Your task to perform on an android device: change your default location settings in chrome Image 0: 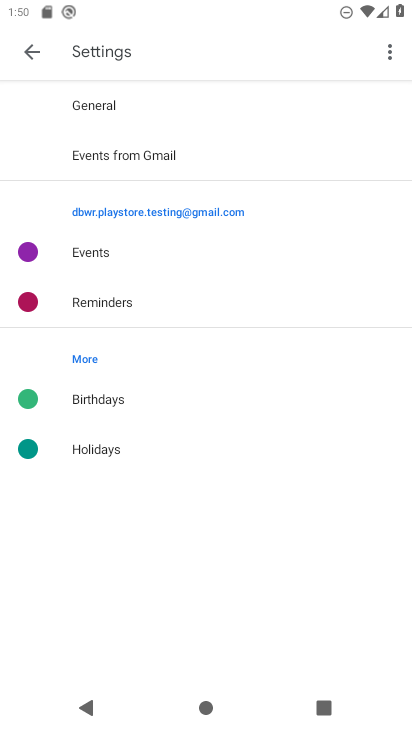
Step 0: press home button
Your task to perform on an android device: change your default location settings in chrome Image 1: 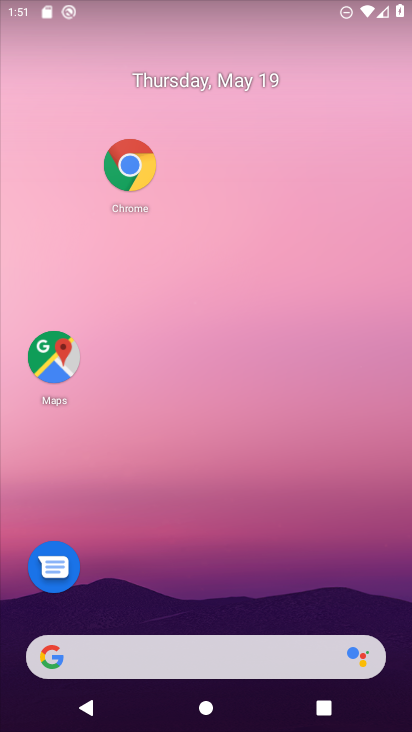
Step 1: click (132, 161)
Your task to perform on an android device: change your default location settings in chrome Image 2: 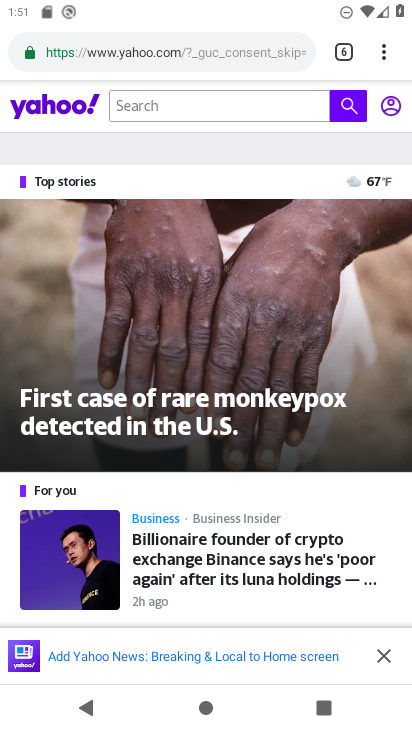
Step 2: click (66, 471)
Your task to perform on an android device: change your default location settings in chrome Image 3: 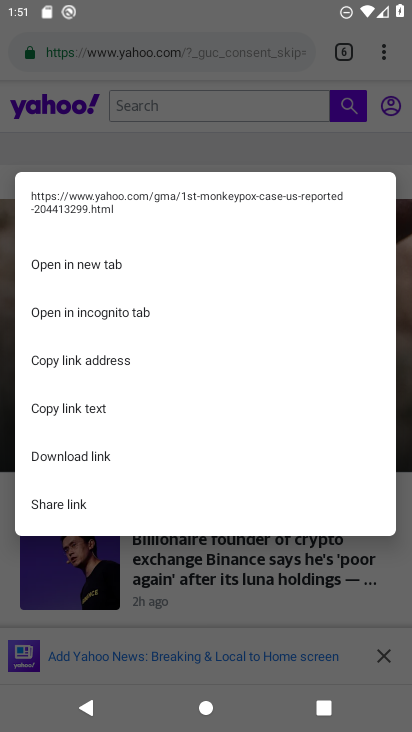
Step 3: press back button
Your task to perform on an android device: change your default location settings in chrome Image 4: 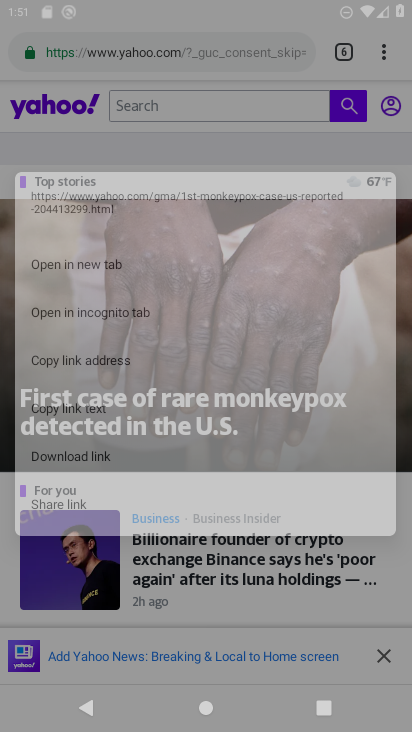
Step 4: press back button
Your task to perform on an android device: change your default location settings in chrome Image 5: 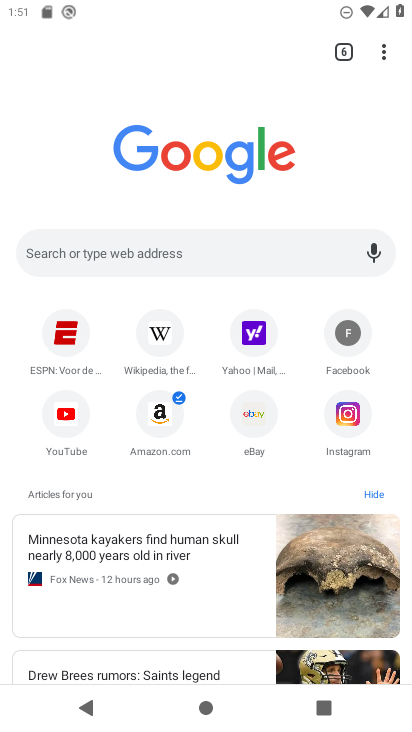
Step 5: click (378, 39)
Your task to perform on an android device: change your default location settings in chrome Image 6: 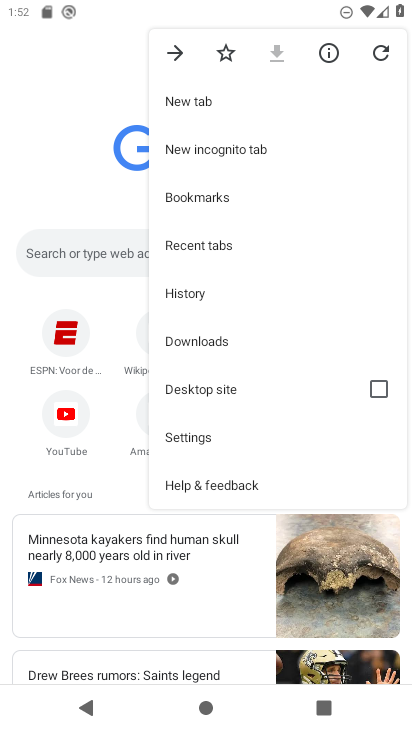
Step 6: click (174, 430)
Your task to perform on an android device: change your default location settings in chrome Image 7: 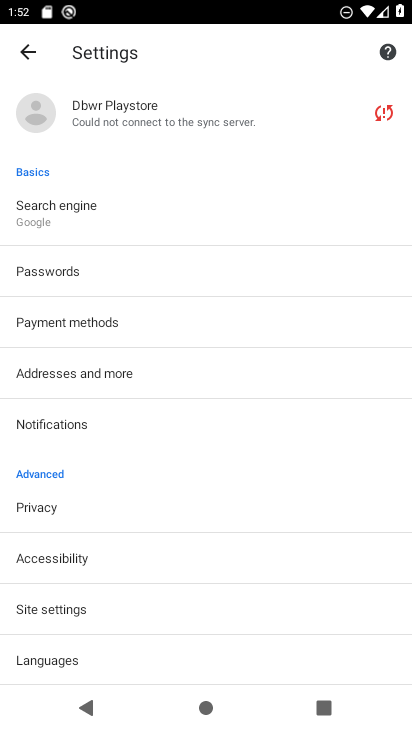
Step 7: drag from (257, 605) to (311, 295)
Your task to perform on an android device: change your default location settings in chrome Image 8: 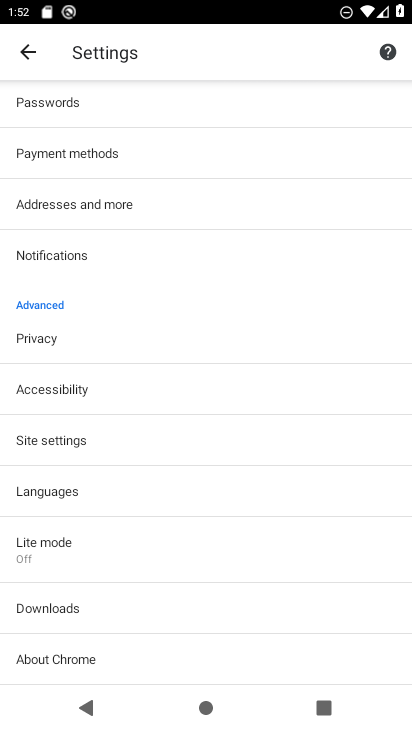
Step 8: click (108, 435)
Your task to perform on an android device: change your default location settings in chrome Image 9: 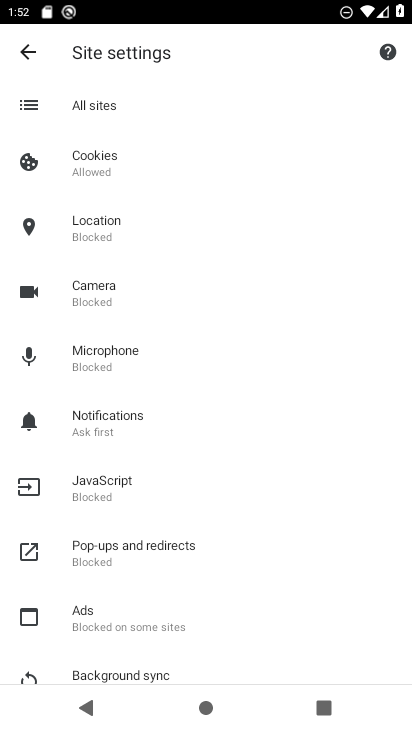
Step 9: click (160, 226)
Your task to perform on an android device: change your default location settings in chrome Image 10: 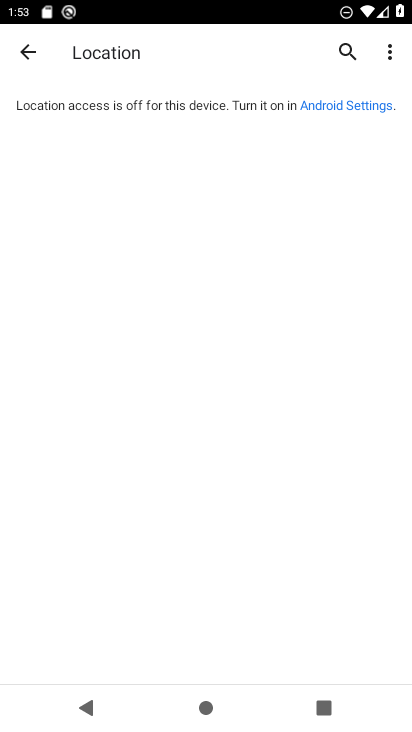
Step 10: task complete